Your task to perform on an android device: Open Youtube and go to "Your channel" Image 0: 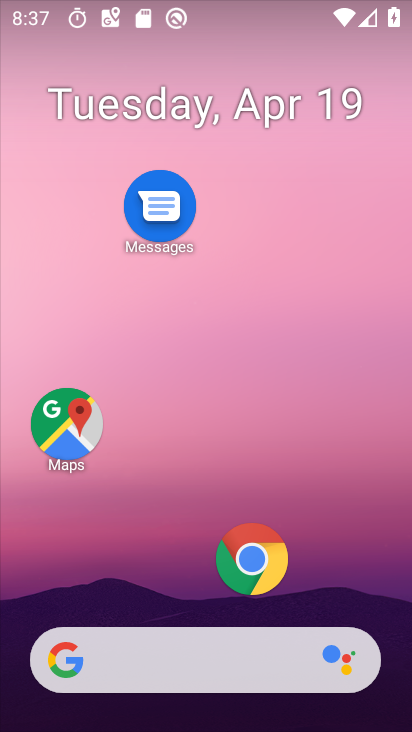
Step 0: drag from (209, 671) to (245, 409)
Your task to perform on an android device: Open Youtube and go to "Your channel" Image 1: 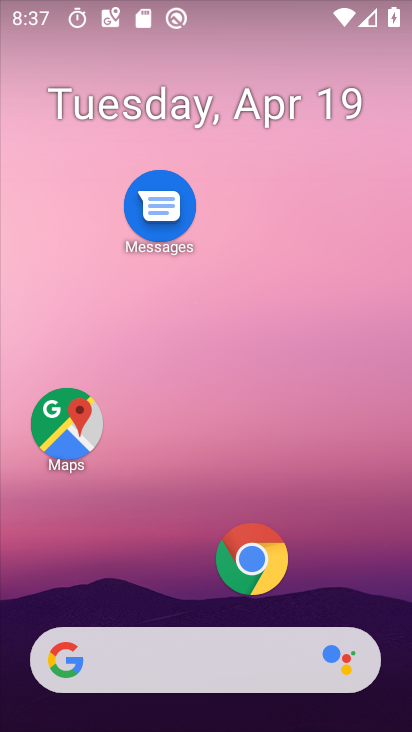
Step 1: drag from (197, 634) to (125, 21)
Your task to perform on an android device: Open Youtube and go to "Your channel" Image 2: 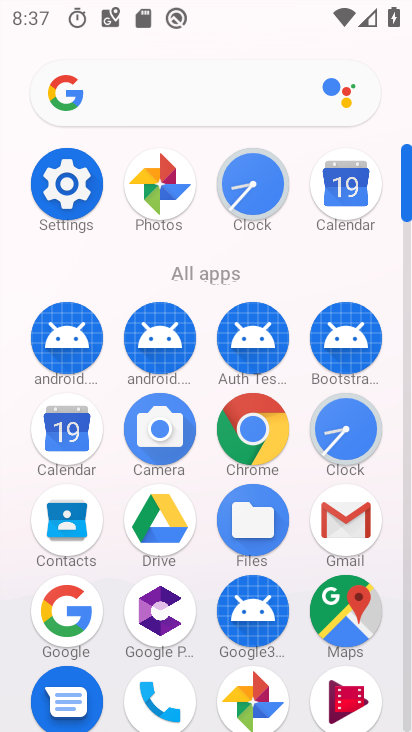
Step 2: drag from (204, 575) to (143, 76)
Your task to perform on an android device: Open Youtube and go to "Your channel" Image 3: 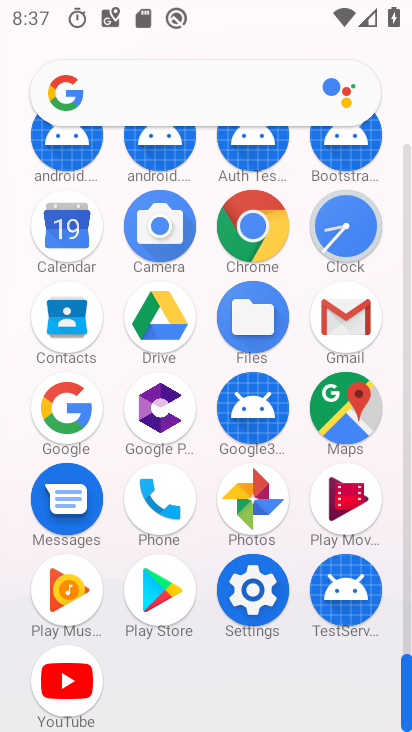
Step 3: click (61, 678)
Your task to perform on an android device: Open Youtube and go to "Your channel" Image 4: 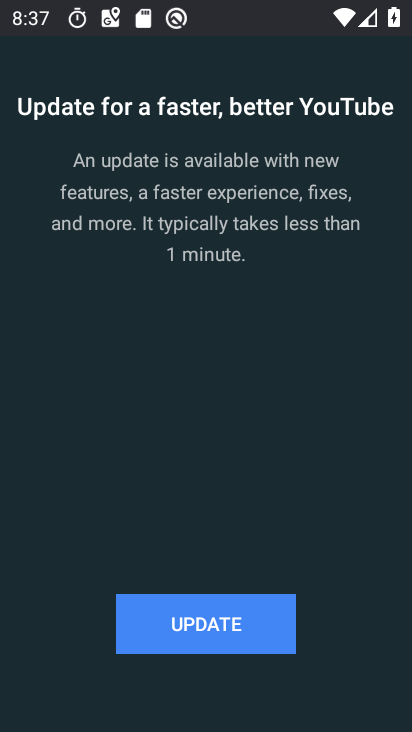
Step 4: click (203, 643)
Your task to perform on an android device: Open Youtube and go to "Your channel" Image 5: 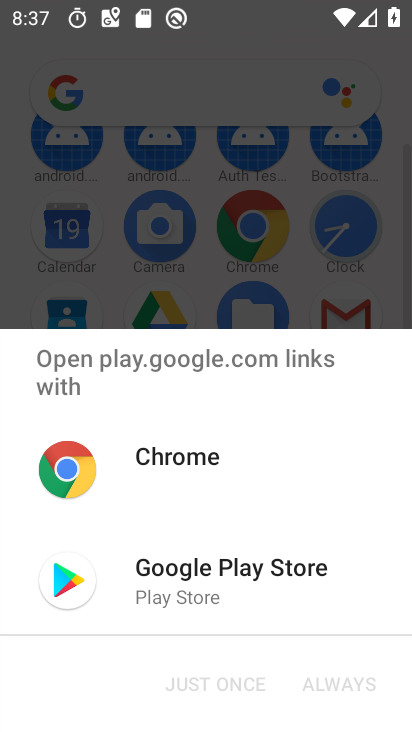
Step 5: click (216, 599)
Your task to perform on an android device: Open Youtube and go to "Your channel" Image 6: 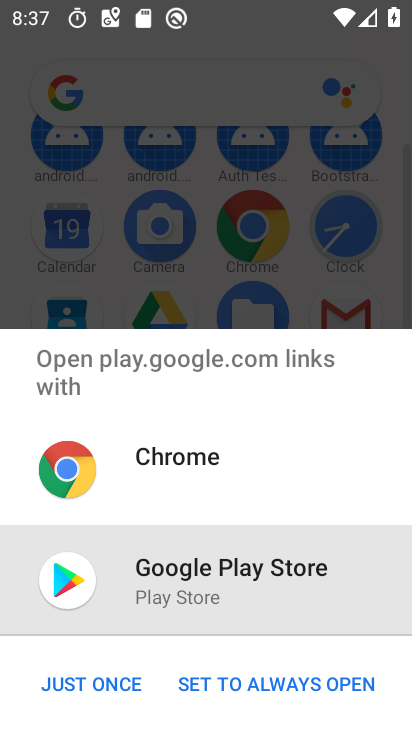
Step 6: click (106, 695)
Your task to perform on an android device: Open Youtube and go to "Your channel" Image 7: 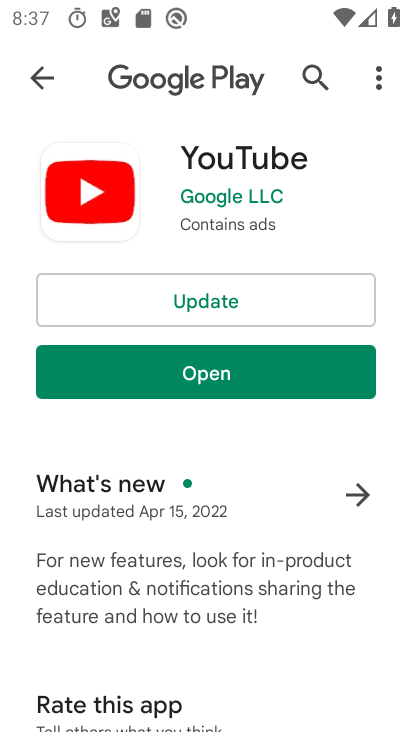
Step 7: click (154, 279)
Your task to perform on an android device: Open Youtube and go to "Your channel" Image 8: 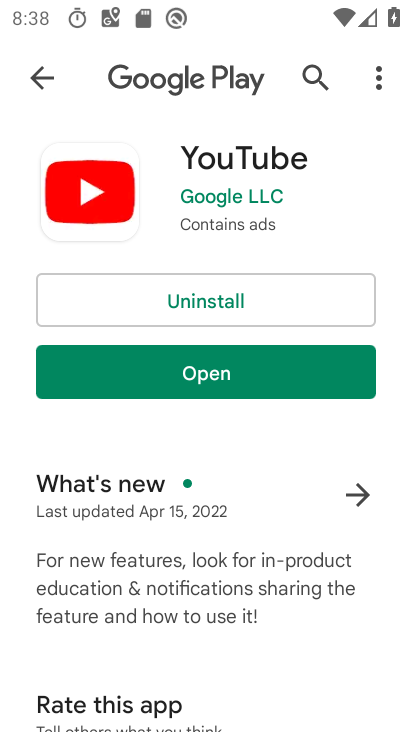
Step 8: click (243, 373)
Your task to perform on an android device: Open Youtube and go to "Your channel" Image 9: 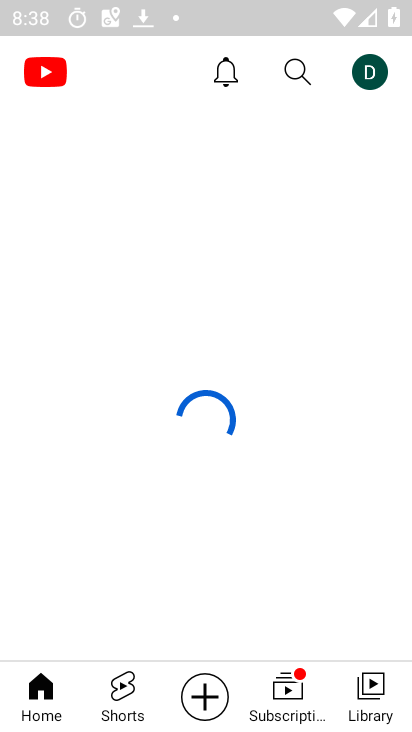
Step 9: click (373, 73)
Your task to perform on an android device: Open Youtube and go to "Your channel" Image 10: 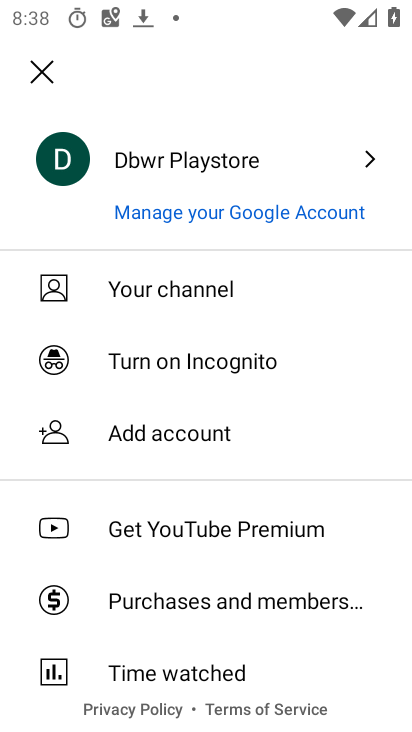
Step 10: click (128, 293)
Your task to perform on an android device: Open Youtube and go to "Your channel" Image 11: 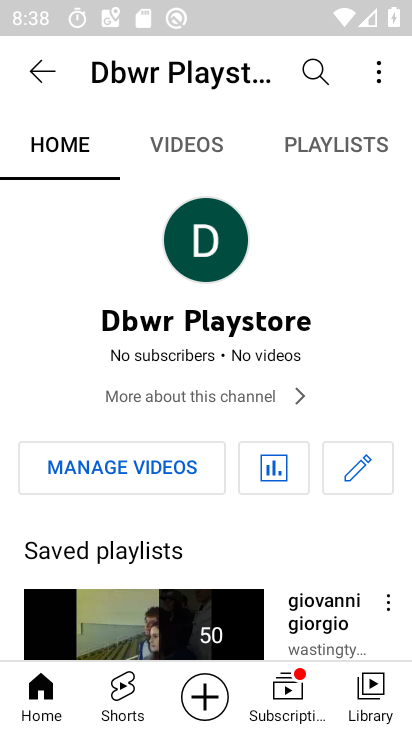
Step 11: task complete